Your task to perform on an android device: Open the stopwatch Image 0: 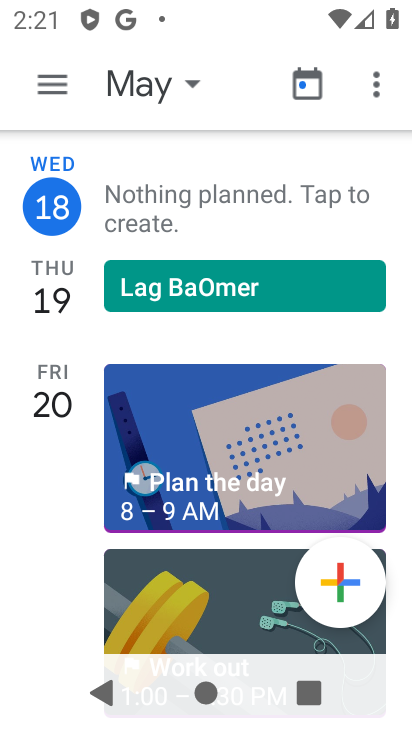
Step 0: press home button
Your task to perform on an android device: Open the stopwatch Image 1: 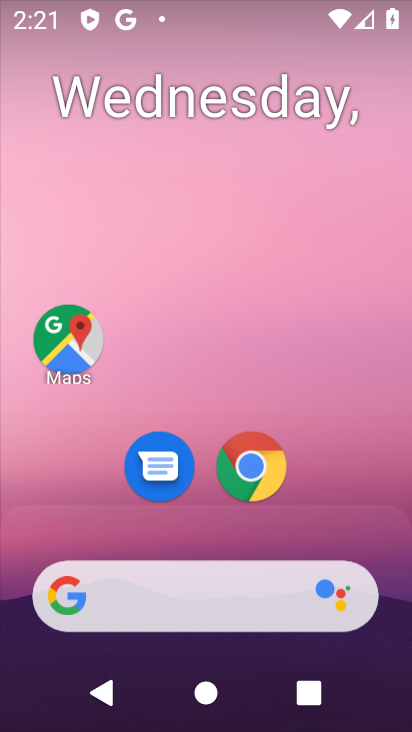
Step 1: drag from (388, 517) to (318, 121)
Your task to perform on an android device: Open the stopwatch Image 2: 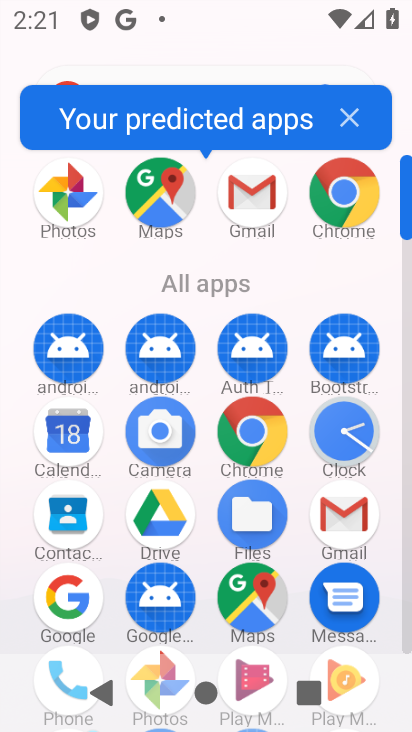
Step 2: click (359, 431)
Your task to perform on an android device: Open the stopwatch Image 3: 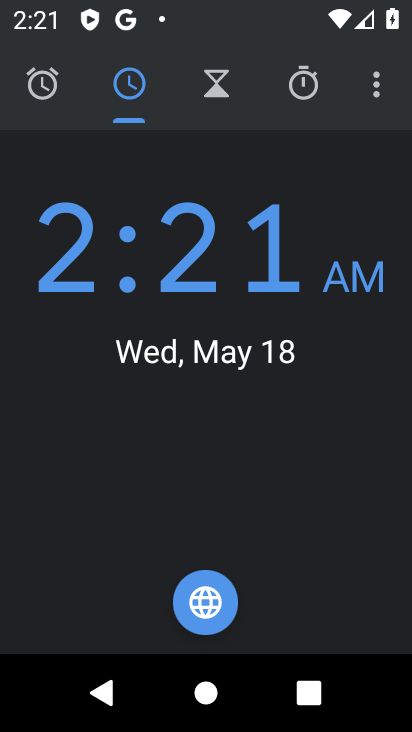
Step 3: click (312, 109)
Your task to perform on an android device: Open the stopwatch Image 4: 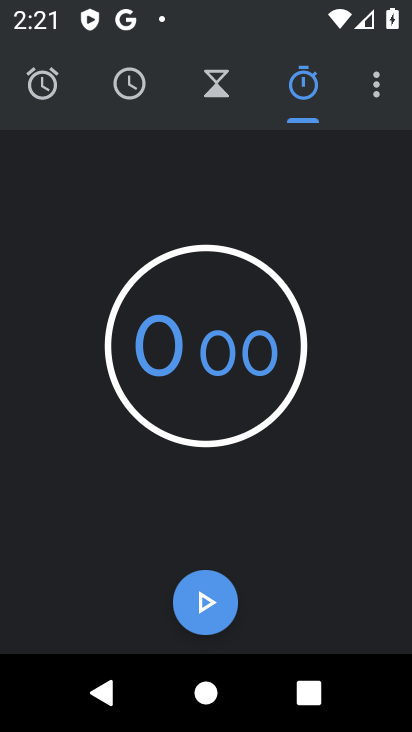
Step 4: task complete